Your task to perform on an android device: remove spam from my inbox in the gmail app Image 0: 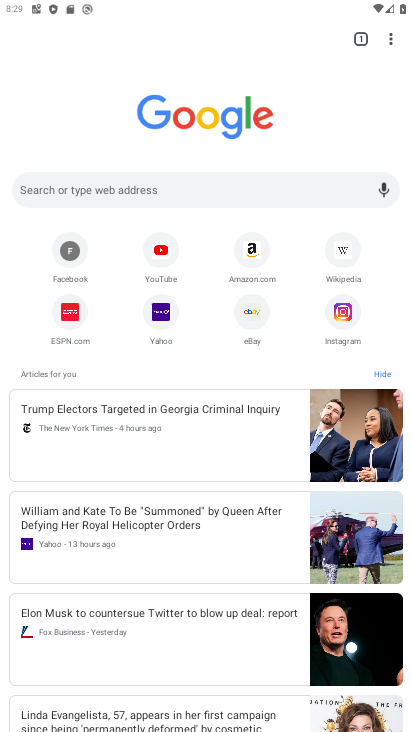
Step 0: press home button
Your task to perform on an android device: remove spam from my inbox in the gmail app Image 1: 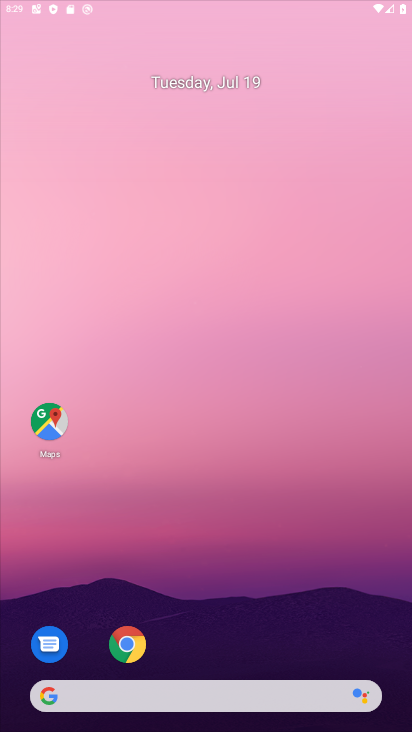
Step 1: drag from (173, 615) to (106, 28)
Your task to perform on an android device: remove spam from my inbox in the gmail app Image 2: 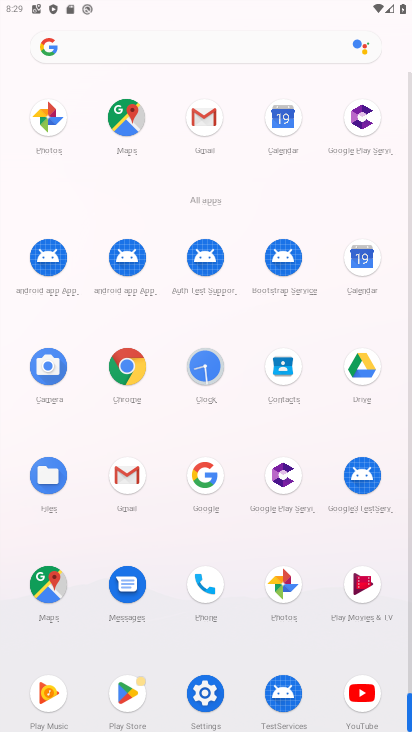
Step 2: click (132, 470)
Your task to perform on an android device: remove spam from my inbox in the gmail app Image 3: 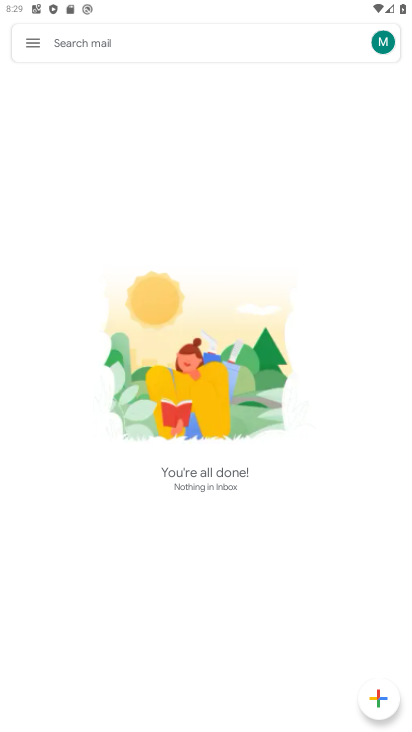
Step 3: click (34, 44)
Your task to perform on an android device: remove spam from my inbox in the gmail app Image 4: 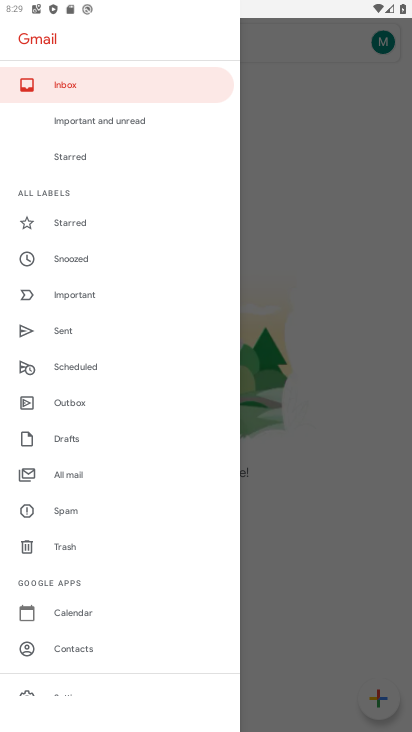
Step 4: click (69, 515)
Your task to perform on an android device: remove spam from my inbox in the gmail app Image 5: 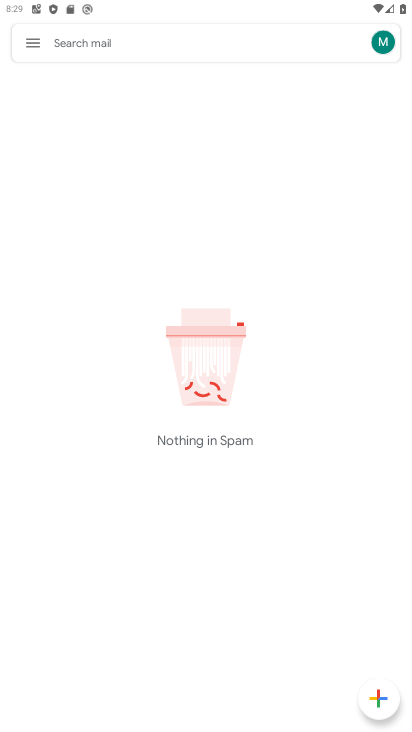
Step 5: drag from (181, 559) to (230, 338)
Your task to perform on an android device: remove spam from my inbox in the gmail app Image 6: 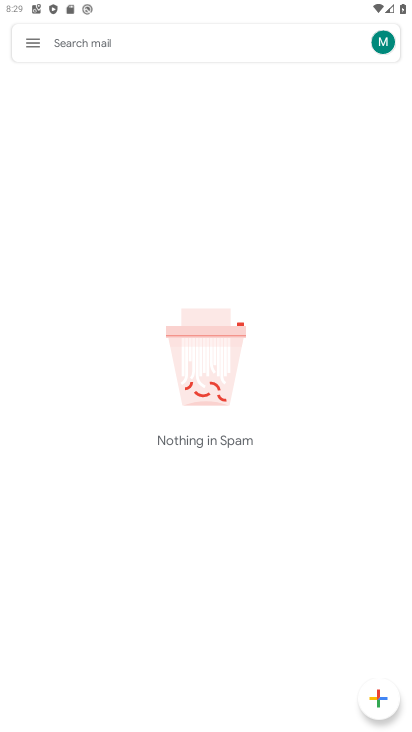
Step 6: drag from (216, 504) to (253, 195)
Your task to perform on an android device: remove spam from my inbox in the gmail app Image 7: 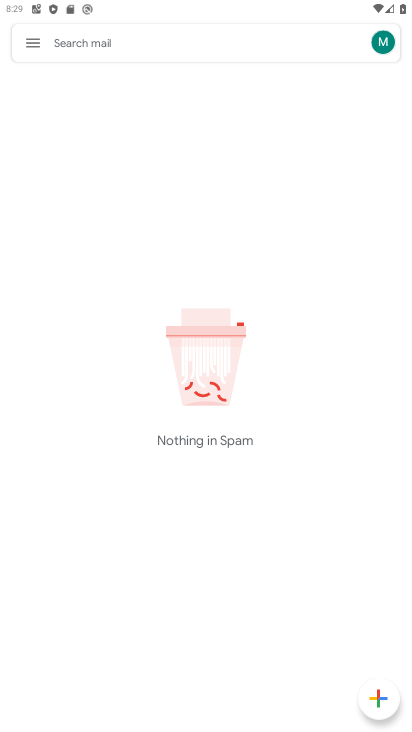
Step 7: drag from (160, 240) to (154, 201)
Your task to perform on an android device: remove spam from my inbox in the gmail app Image 8: 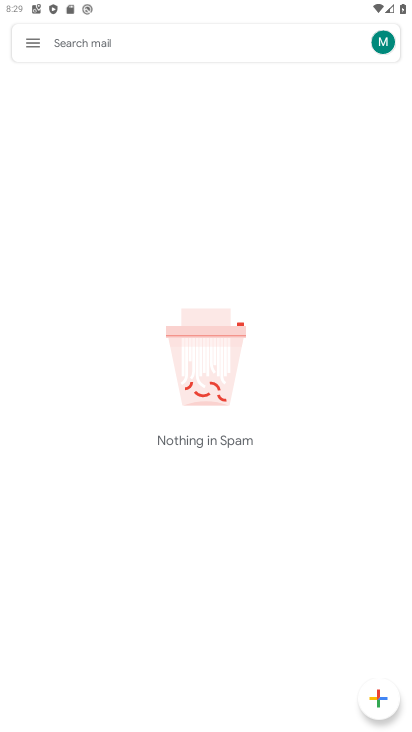
Step 8: drag from (220, 200) to (282, 562)
Your task to perform on an android device: remove spam from my inbox in the gmail app Image 9: 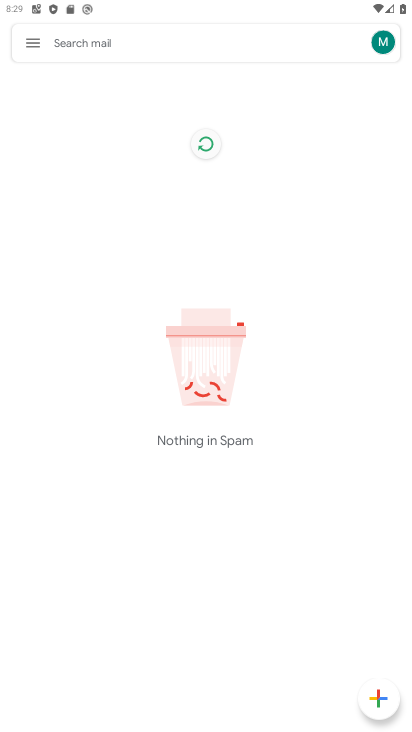
Step 9: drag from (242, 471) to (184, 168)
Your task to perform on an android device: remove spam from my inbox in the gmail app Image 10: 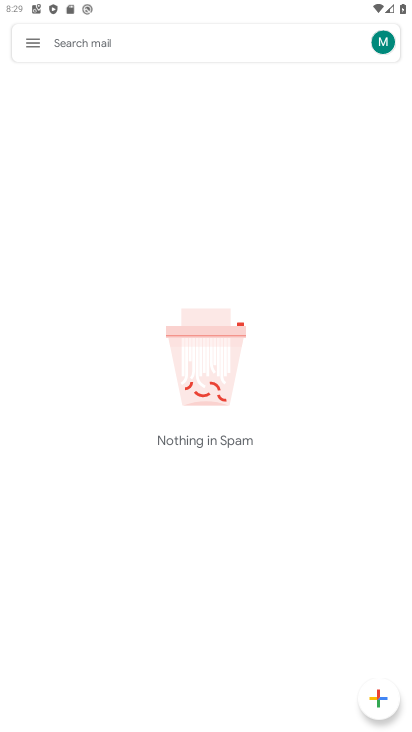
Step 10: drag from (295, 397) to (230, 178)
Your task to perform on an android device: remove spam from my inbox in the gmail app Image 11: 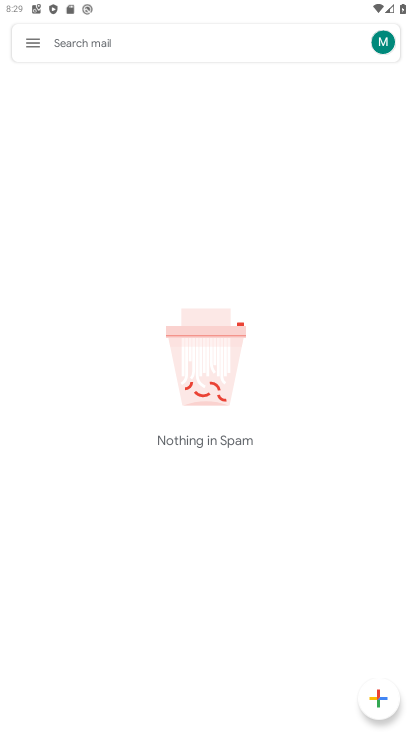
Step 11: drag from (184, 542) to (189, 385)
Your task to perform on an android device: remove spam from my inbox in the gmail app Image 12: 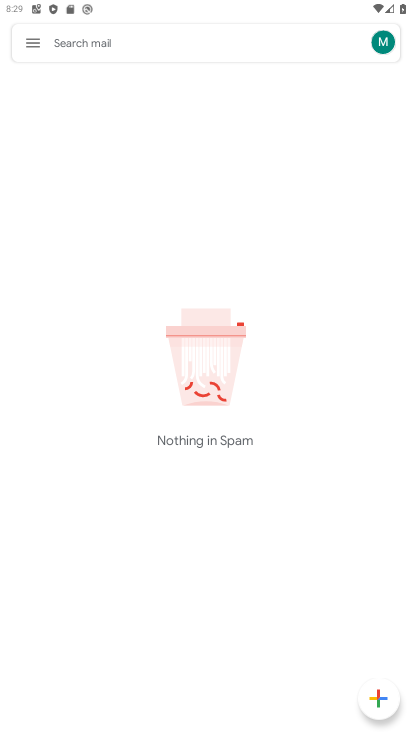
Step 12: click (199, 218)
Your task to perform on an android device: remove spam from my inbox in the gmail app Image 13: 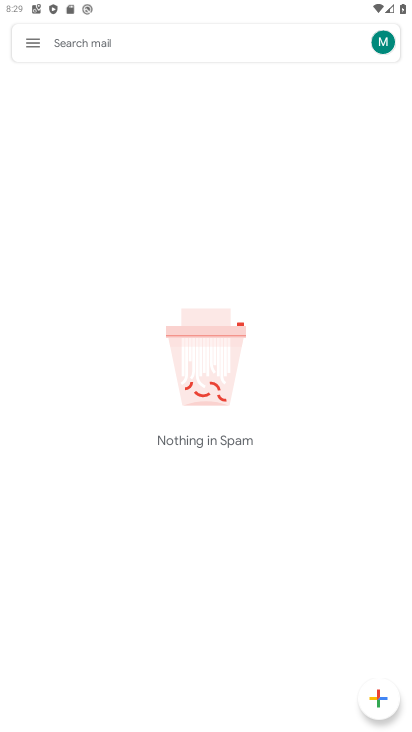
Step 13: click (274, 482)
Your task to perform on an android device: remove spam from my inbox in the gmail app Image 14: 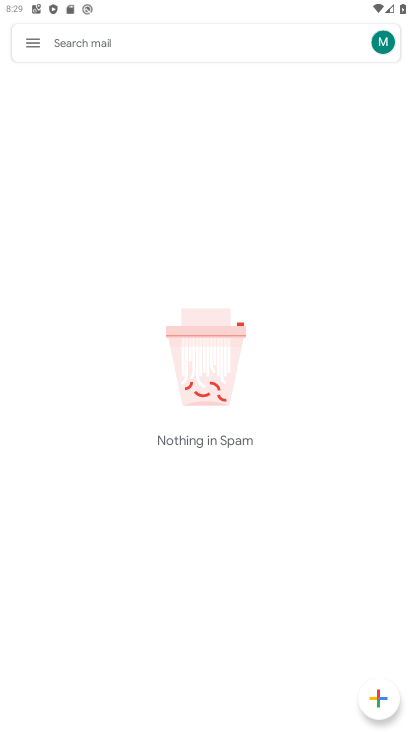
Step 14: click (257, 439)
Your task to perform on an android device: remove spam from my inbox in the gmail app Image 15: 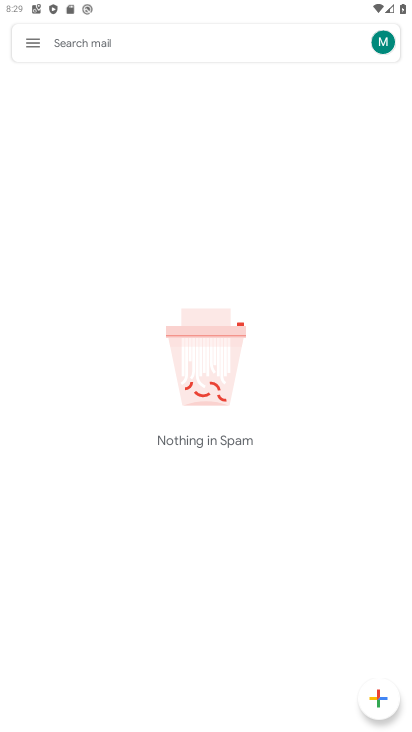
Step 15: task complete